Your task to perform on an android device: turn off picture-in-picture Image 0: 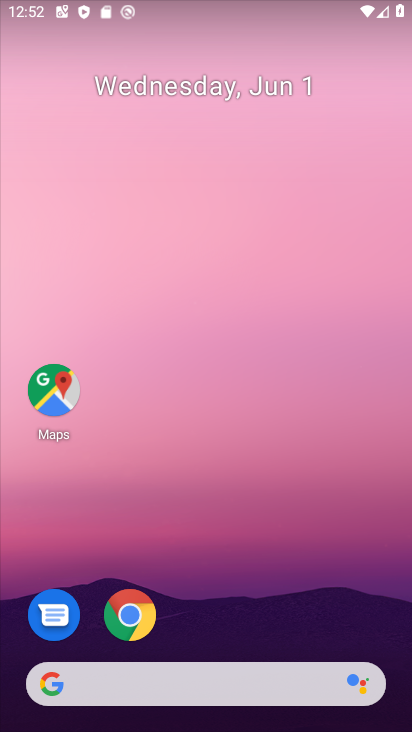
Step 0: task complete